Your task to perform on an android device: uninstall "Cash App" Image 0: 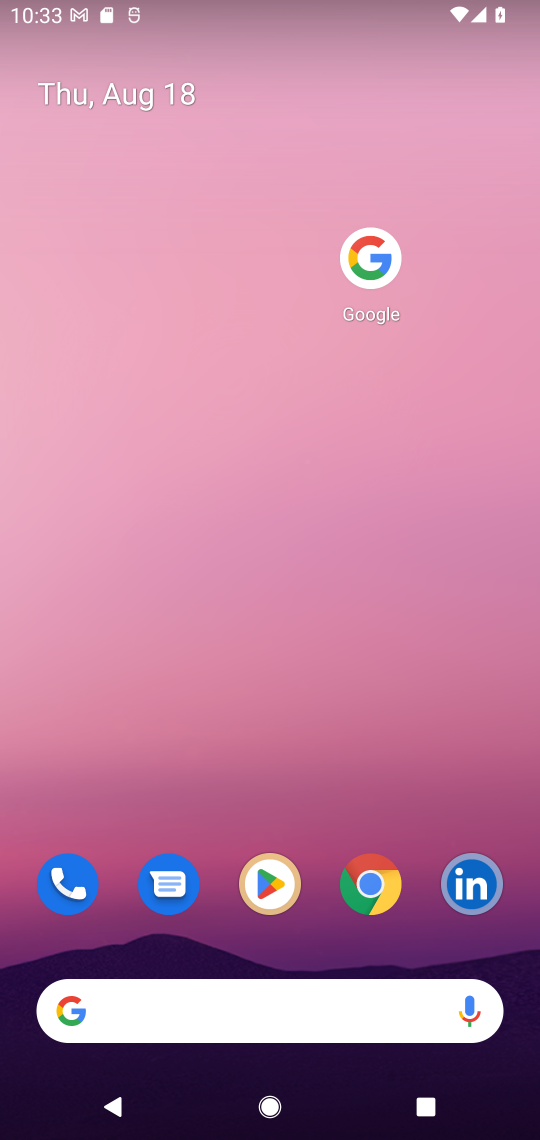
Step 0: task complete